Your task to perform on an android device: Go to Yahoo.com Image 0: 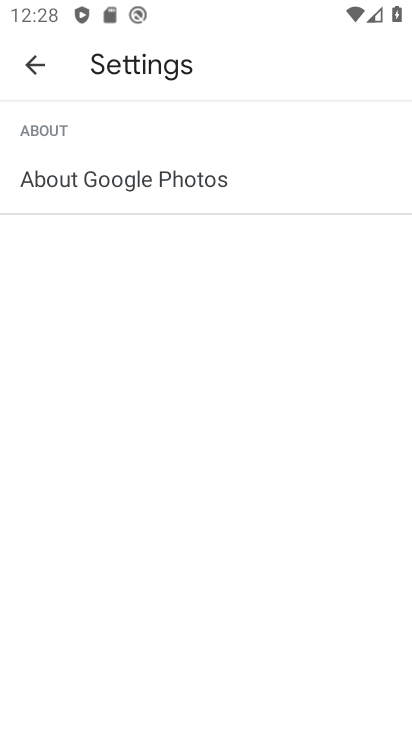
Step 0: press back button
Your task to perform on an android device: Go to Yahoo.com Image 1: 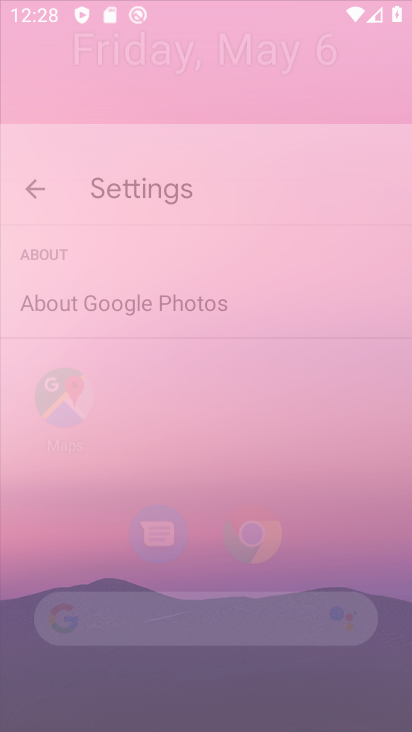
Step 1: press home button
Your task to perform on an android device: Go to Yahoo.com Image 2: 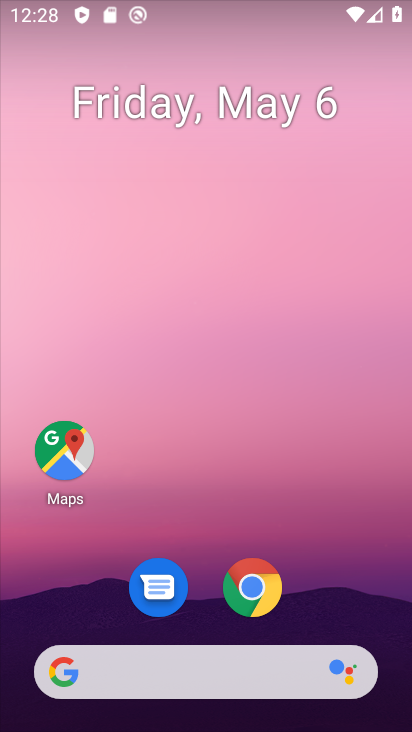
Step 2: click (238, 607)
Your task to perform on an android device: Go to Yahoo.com Image 3: 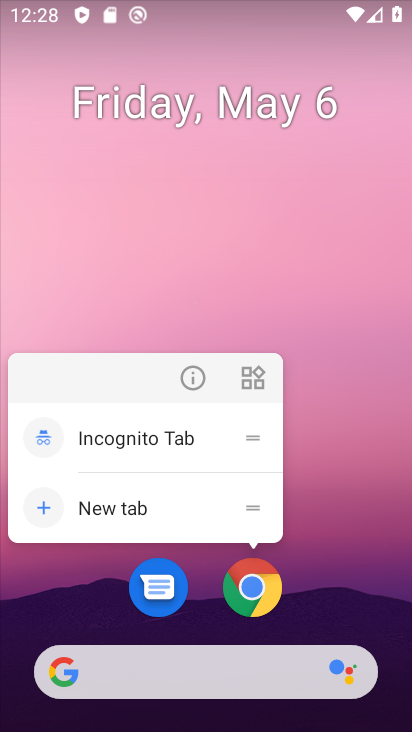
Step 3: click (264, 589)
Your task to perform on an android device: Go to Yahoo.com Image 4: 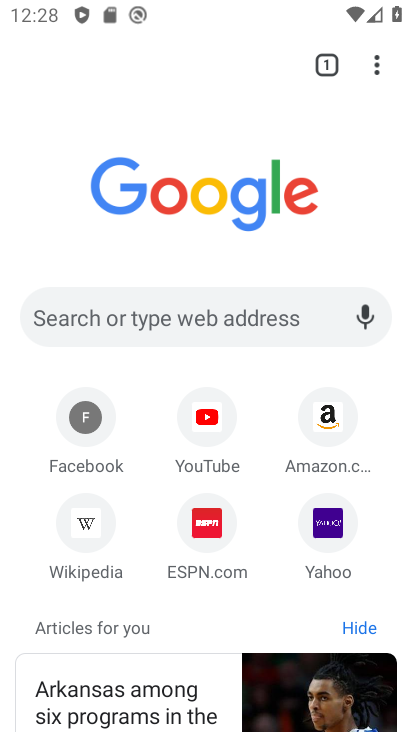
Step 4: click (340, 540)
Your task to perform on an android device: Go to Yahoo.com Image 5: 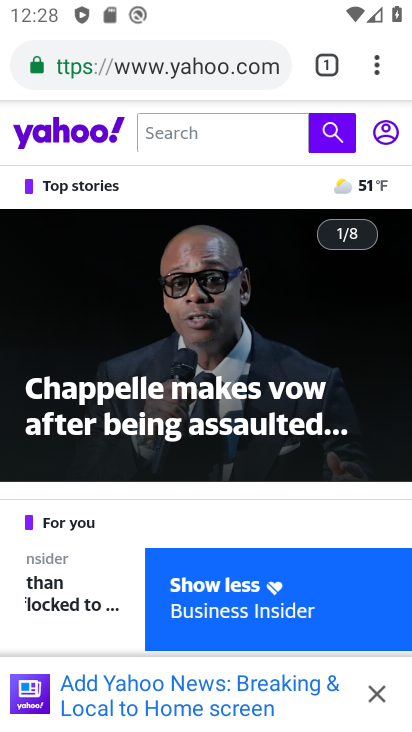
Step 5: task complete